Your task to perform on an android device: When is my next appointment? Image 0: 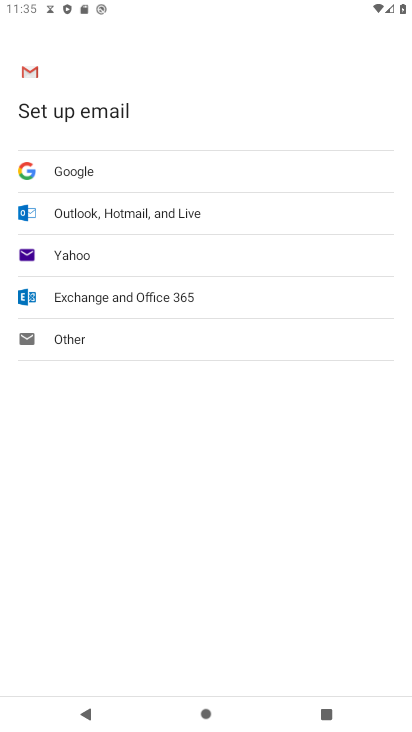
Step 0: press home button
Your task to perform on an android device: When is my next appointment? Image 1: 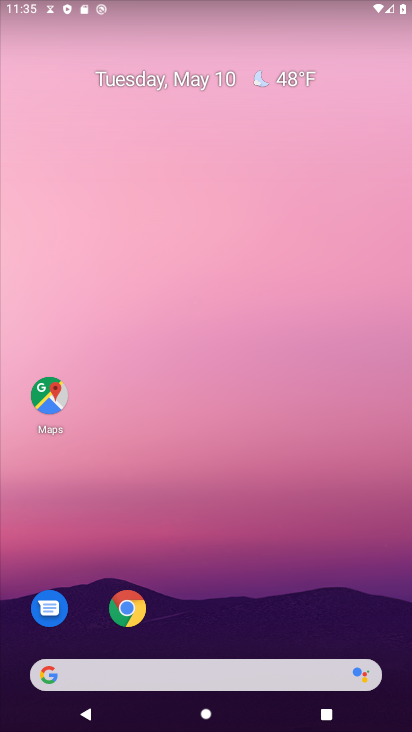
Step 1: drag from (206, 586) to (209, 153)
Your task to perform on an android device: When is my next appointment? Image 2: 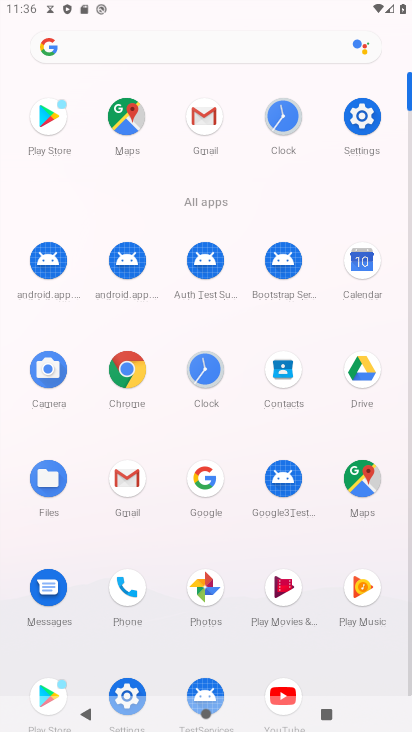
Step 2: click (369, 262)
Your task to perform on an android device: When is my next appointment? Image 3: 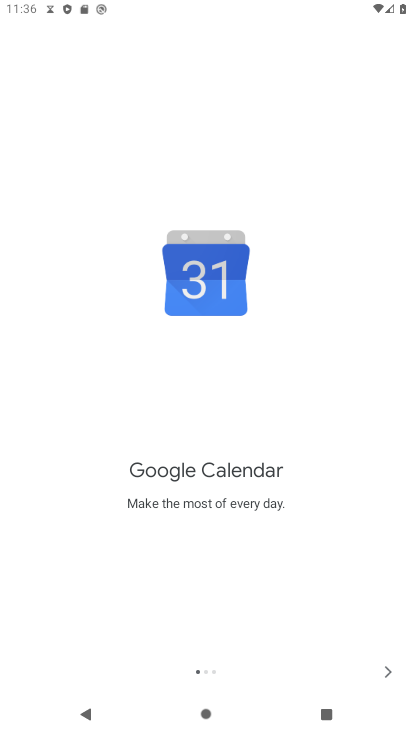
Step 3: click (393, 669)
Your task to perform on an android device: When is my next appointment? Image 4: 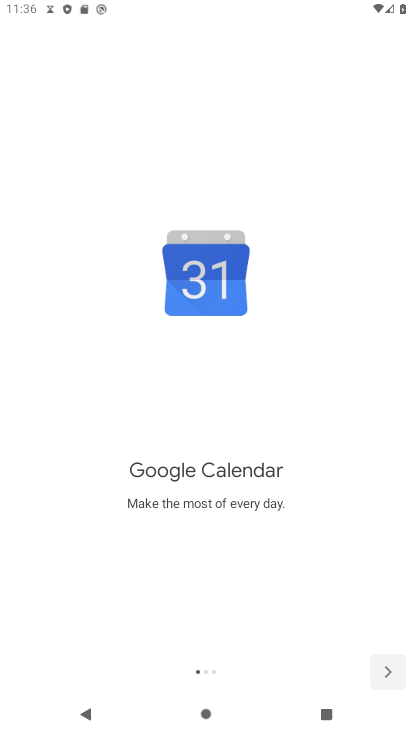
Step 4: click (393, 669)
Your task to perform on an android device: When is my next appointment? Image 5: 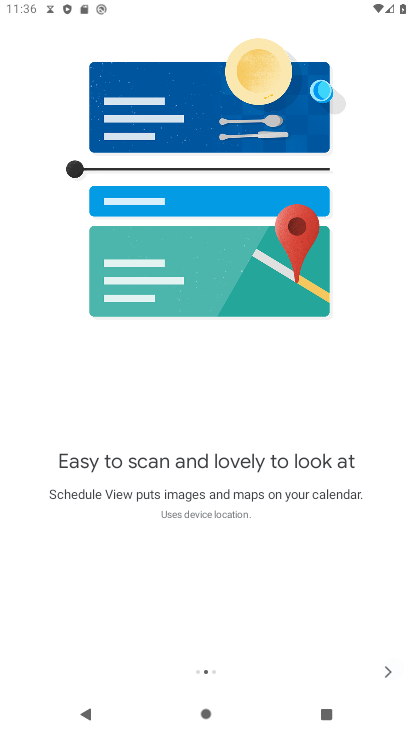
Step 5: click (393, 669)
Your task to perform on an android device: When is my next appointment? Image 6: 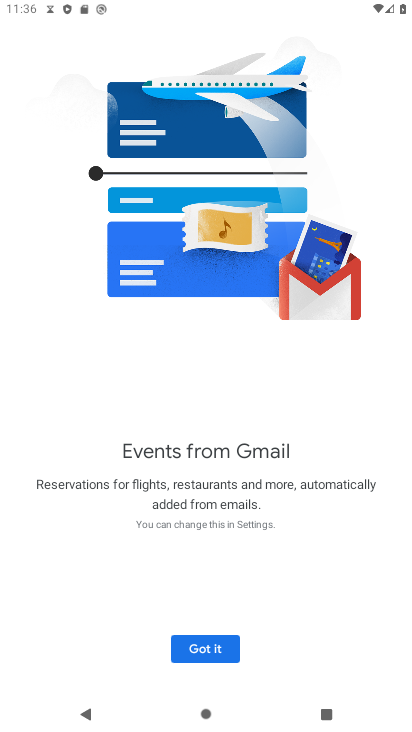
Step 6: click (393, 669)
Your task to perform on an android device: When is my next appointment? Image 7: 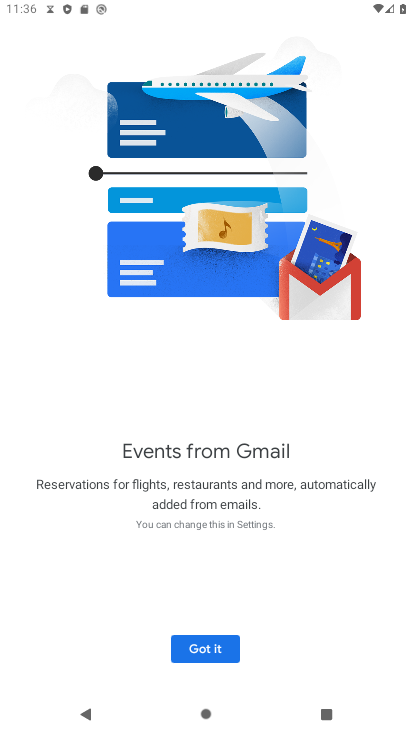
Step 7: click (219, 644)
Your task to perform on an android device: When is my next appointment? Image 8: 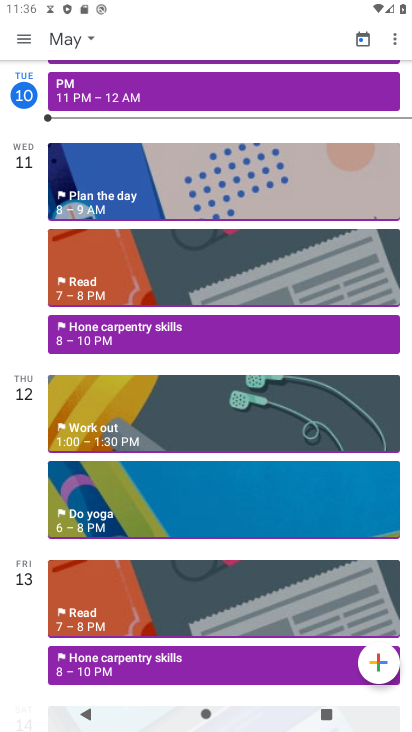
Step 8: click (144, 175)
Your task to perform on an android device: When is my next appointment? Image 9: 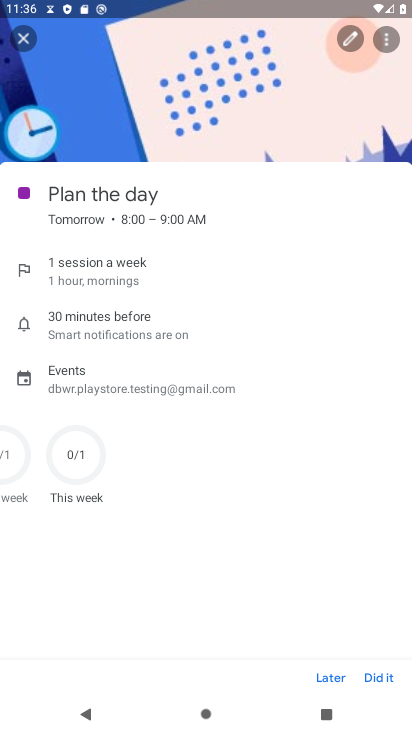
Step 9: task complete